Your task to perform on an android device: visit the assistant section in the google photos Image 0: 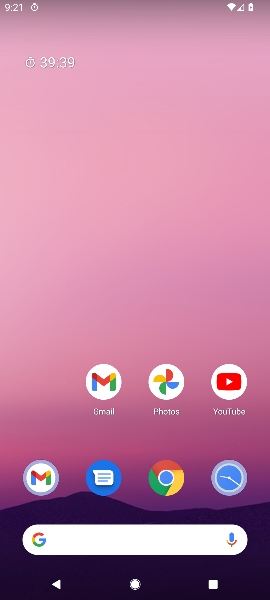
Step 0: press home button
Your task to perform on an android device: visit the assistant section in the google photos Image 1: 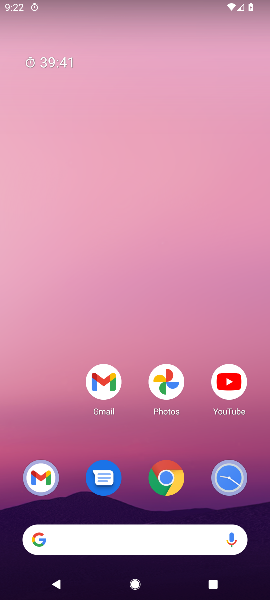
Step 1: drag from (147, 573) to (165, 207)
Your task to perform on an android device: visit the assistant section in the google photos Image 2: 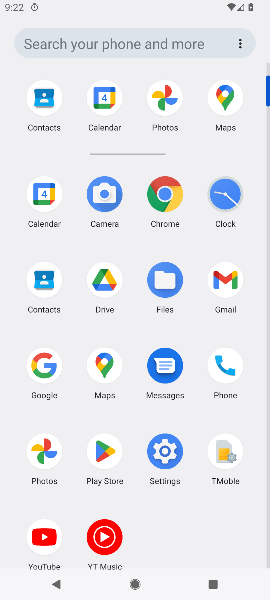
Step 2: click (30, 451)
Your task to perform on an android device: visit the assistant section in the google photos Image 3: 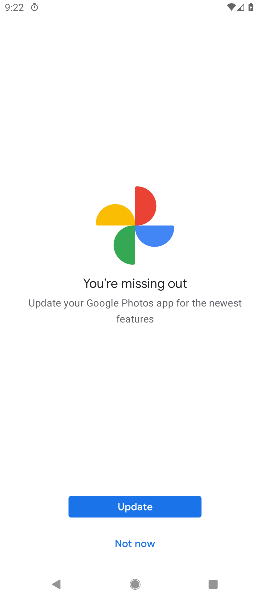
Step 3: click (142, 545)
Your task to perform on an android device: visit the assistant section in the google photos Image 4: 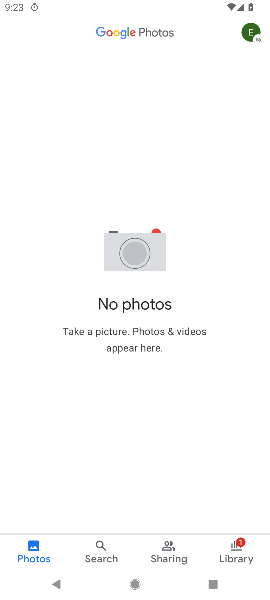
Step 4: task complete